Your task to perform on an android device: Go to Android settings Image 0: 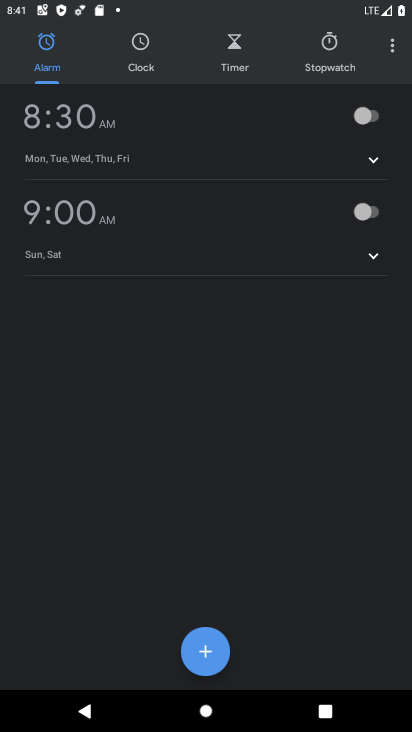
Step 0: press home button
Your task to perform on an android device: Go to Android settings Image 1: 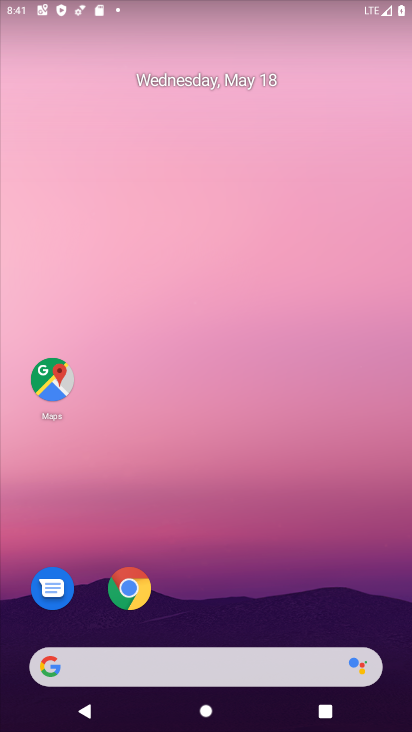
Step 1: drag from (312, 618) to (315, 12)
Your task to perform on an android device: Go to Android settings Image 2: 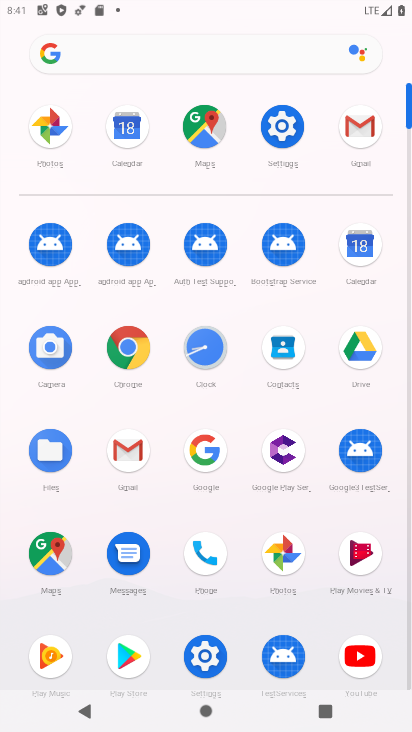
Step 2: click (282, 133)
Your task to perform on an android device: Go to Android settings Image 3: 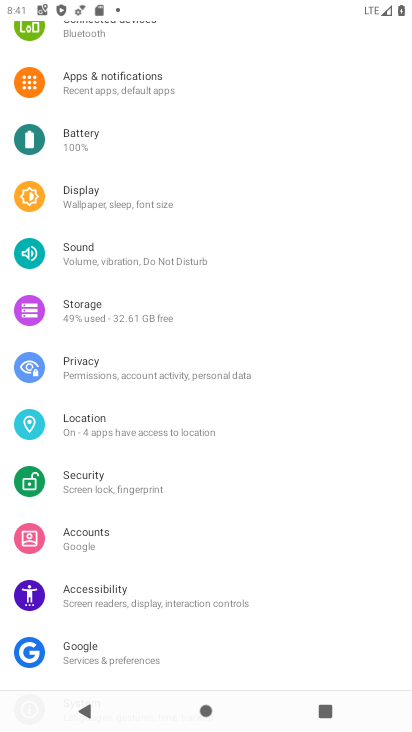
Step 3: task complete